Your task to perform on an android device: Open the calendar and show me this week's events? Image 0: 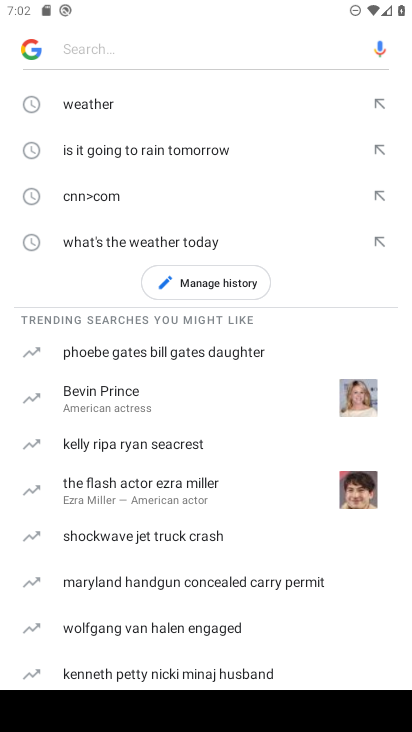
Step 0: press home button
Your task to perform on an android device: Open the calendar and show me this week's events? Image 1: 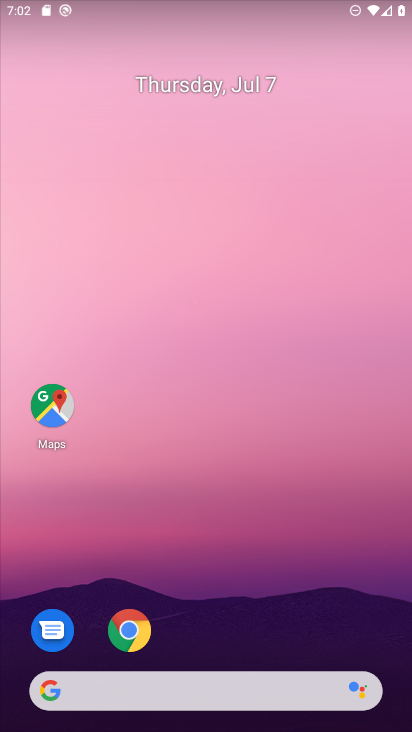
Step 1: drag from (238, 581) to (169, 221)
Your task to perform on an android device: Open the calendar and show me this week's events? Image 2: 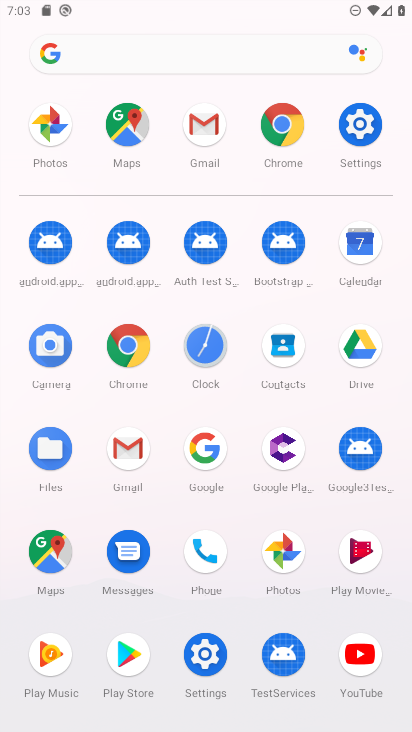
Step 2: click (357, 250)
Your task to perform on an android device: Open the calendar and show me this week's events? Image 3: 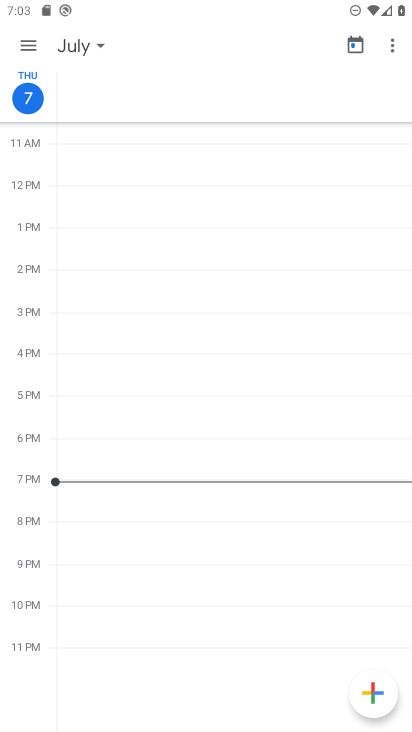
Step 3: press home button
Your task to perform on an android device: Open the calendar and show me this week's events? Image 4: 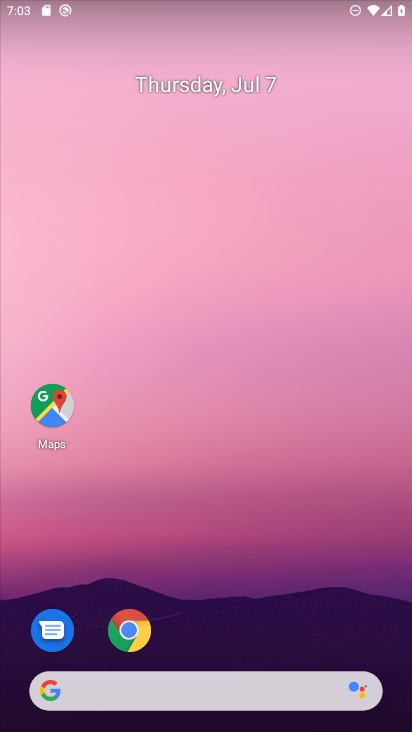
Step 4: drag from (217, 583) to (95, 114)
Your task to perform on an android device: Open the calendar and show me this week's events? Image 5: 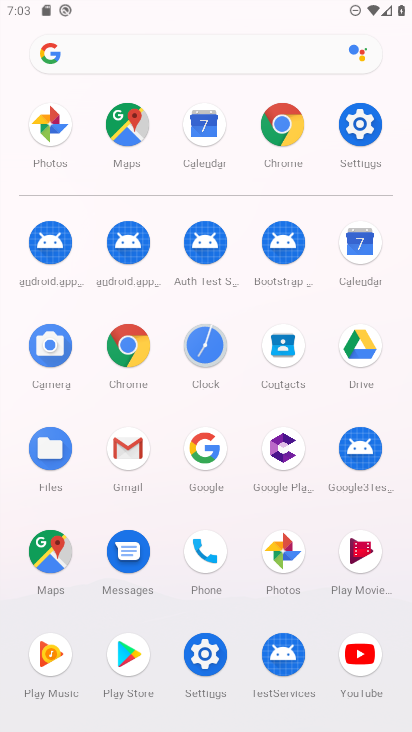
Step 5: click (359, 247)
Your task to perform on an android device: Open the calendar and show me this week's events? Image 6: 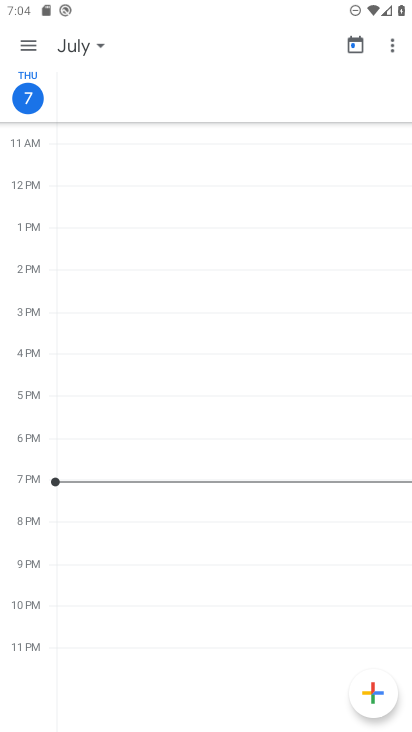
Step 6: click (16, 48)
Your task to perform on an android device: Open the calendar and show me this week's events? Image 7: 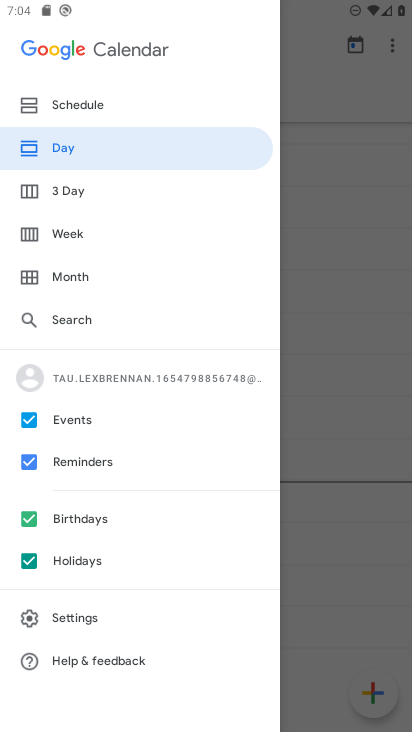
Step 7: click (76, 231)
Your task to perform on an android device: Open the calendar and show me this week's events? Image 8: 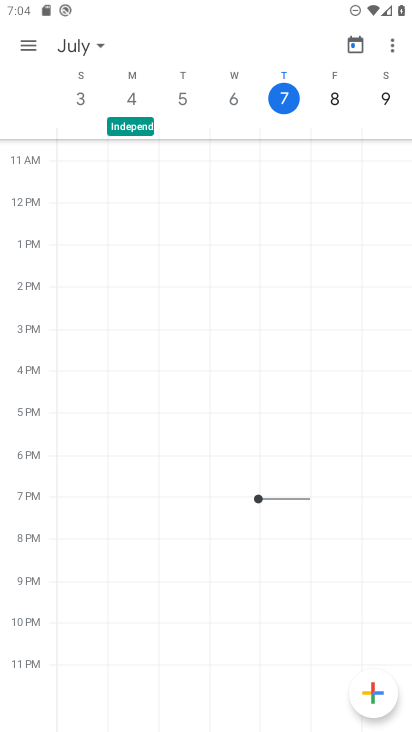
Step 8: task complete